Your task to perform on an android device: Open calendar and show me the third week of next month Image 0: 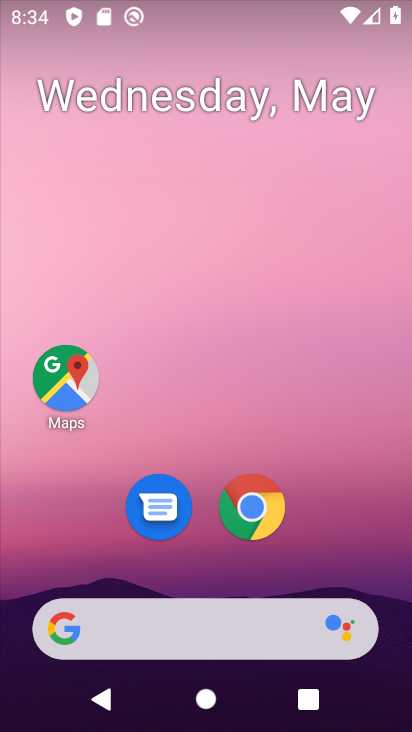
Step 0: press home button
Your task to perform on an android device: Open calendar and show me the third week of next month Image 1: 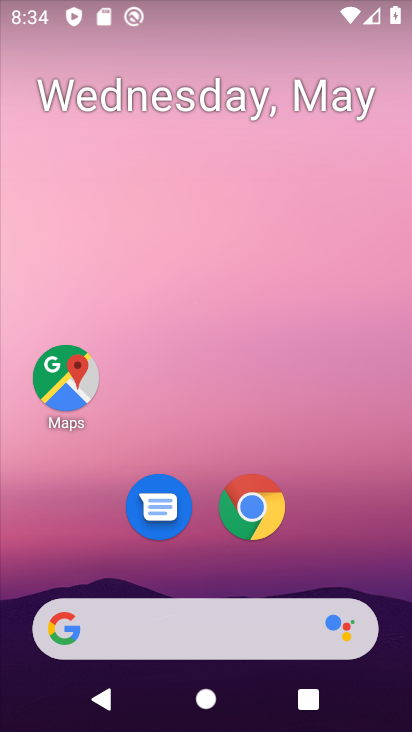
Step 1: press home button
Your task to perform on an android device: Open calendar and show me the third week of next month Image 2: 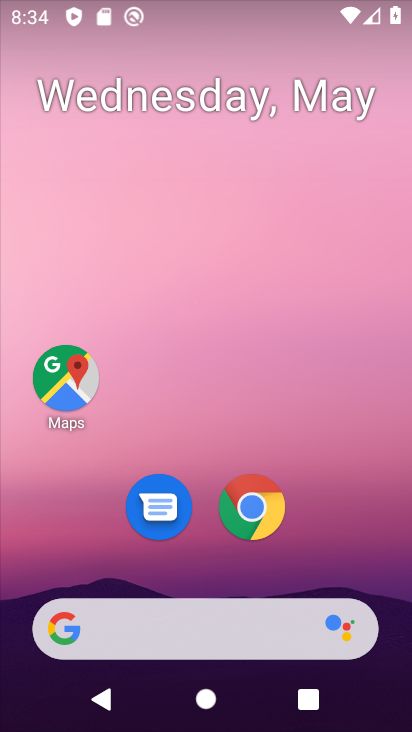
Step 2: drag from (353, 512) to (296, 273)
Your task to perform on an android device: Open calendar and show me the third week of next month Image 3: 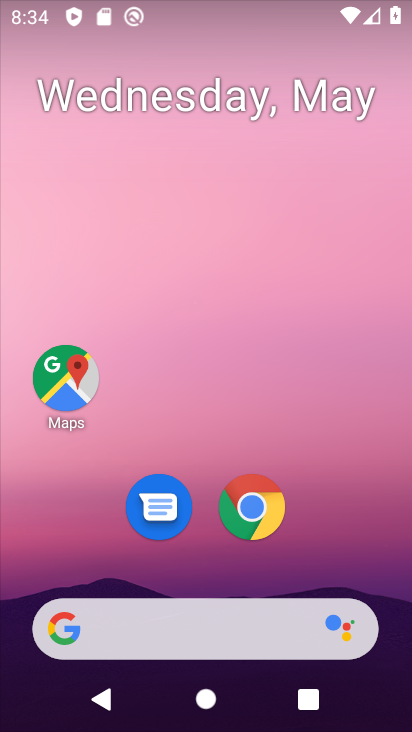
Step 3: drag from (293, 265) to (267, 193)
Your task to perform on an android device: Open calendar and show me the third week of next month Image 4: 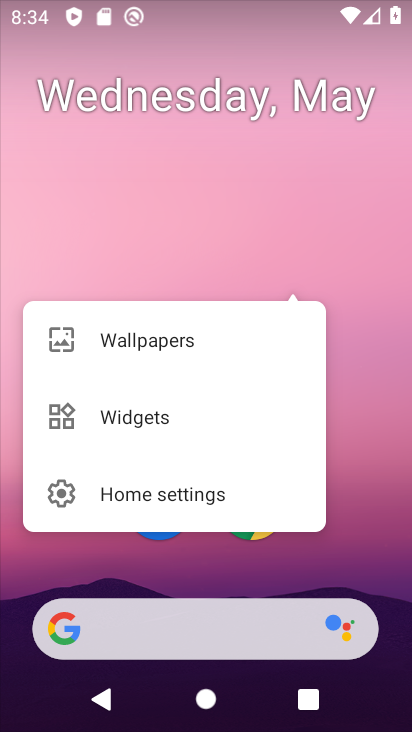
Step 4: click (371, 276)
Your task to perform on an android device: Open calendar and show me the third week of next month Image 5: 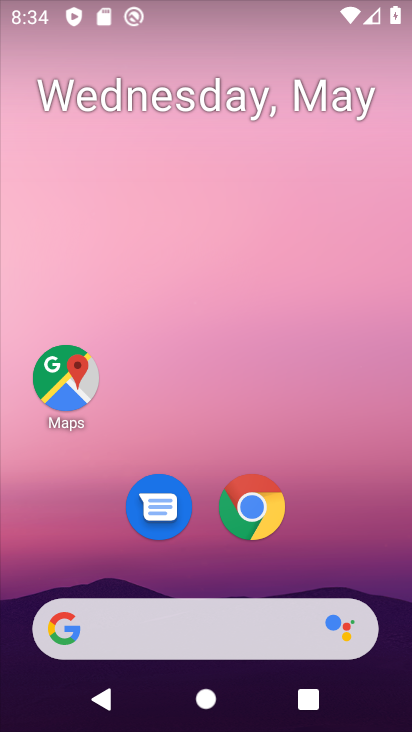
Step 5: drag from (372, 279) to (244, 5)
Your task to perform on an android device: Open calendar and show me the third week of next month Image 6: 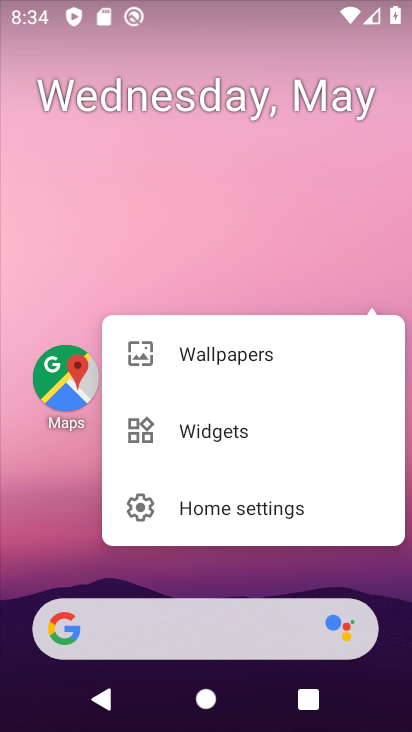
Step 6: click (269, 164)
Your task to perform on an android device: Open calendar and show me the third week of next month Image 7: 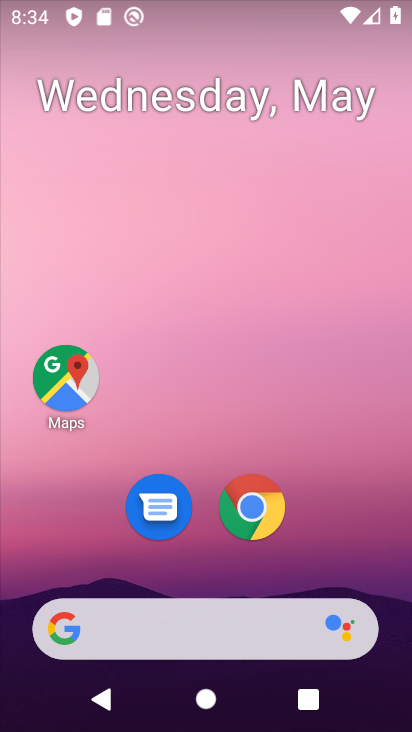
Step 7: drag from (315, 565) to (375, 222)
Your task to perform on an android device: Open calendar and show me the third week of next month Image 8: 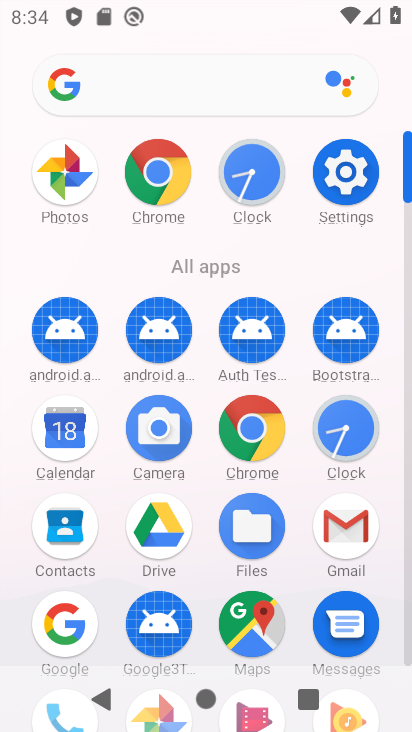
Step 8: click (53, 427)
Your task to perform on an android device: Open calendar and show me the third week of next month Image 9: 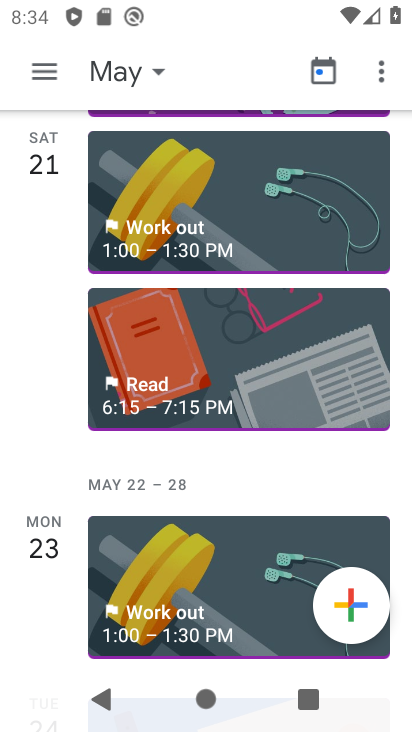
Step 9: click (165, 61)
Your task to perform on an android device: Open calendar and show me the third week of next month Image 10: 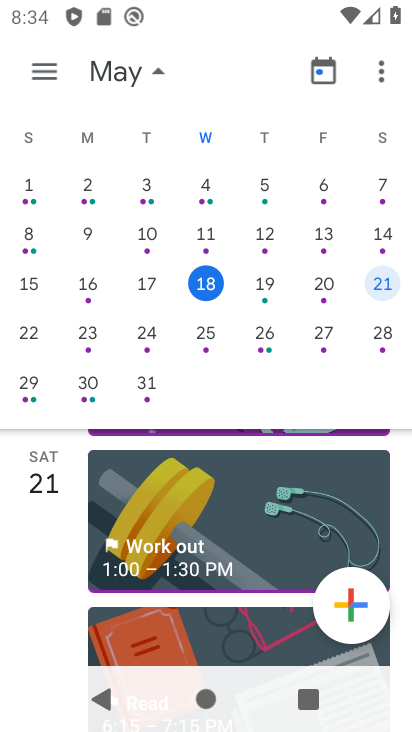
Step 10: drag from (387, 246) to (27, 175)
Your task to perform on an android device: Open calendar and show me the third week of next month Image 11: 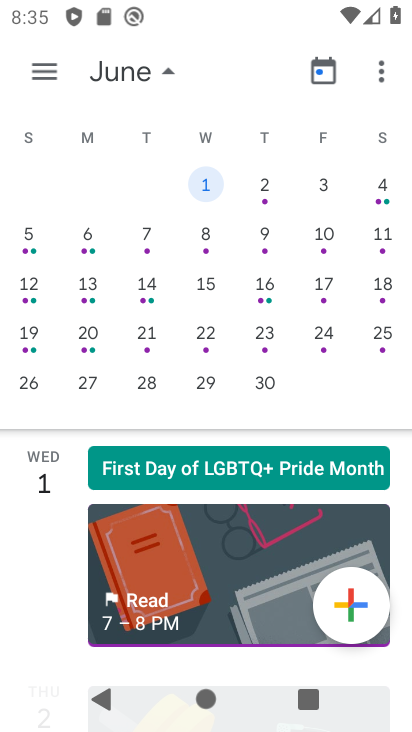
Step 11: click (209, 303)
Your task to perform on an android device: Open calendar and show me the third week of next month Image 12: 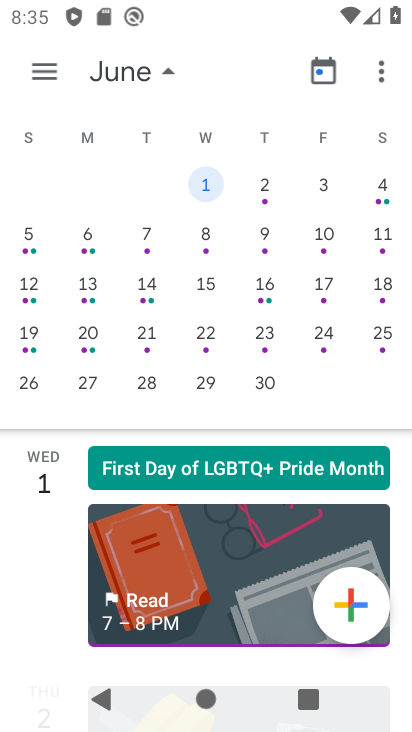
Step 12: click (190, 286)
Your task to perform on an android device: Open calendar and show me the third week of next month Image 13: 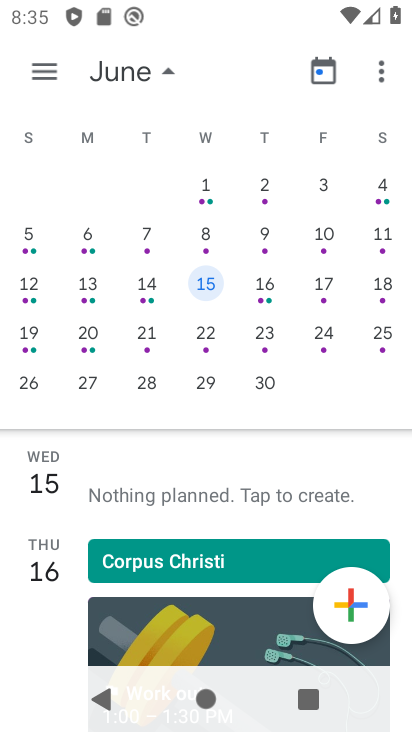
Step 13: task complete